Your task to perform on an android device: check data usage Image 0: 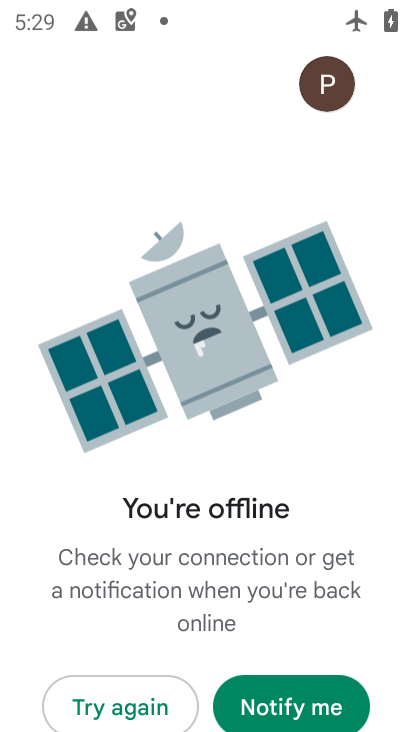
Step 0: press home button
Your task to perform on an android device: check data usage Image 1: 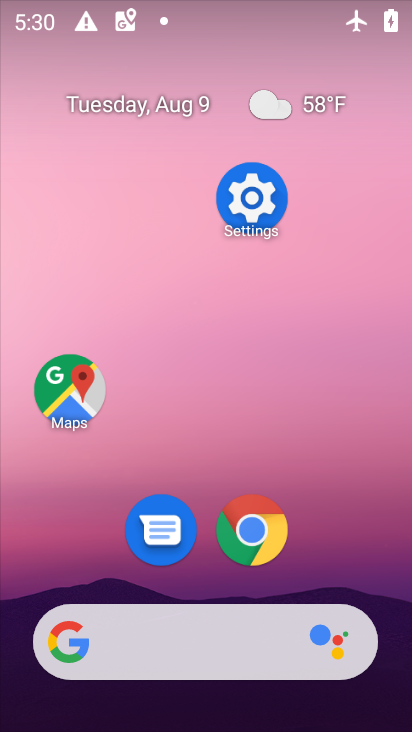
Step 1: click (268, 191)
Your task to perform on an android device: check data usage Image 2: 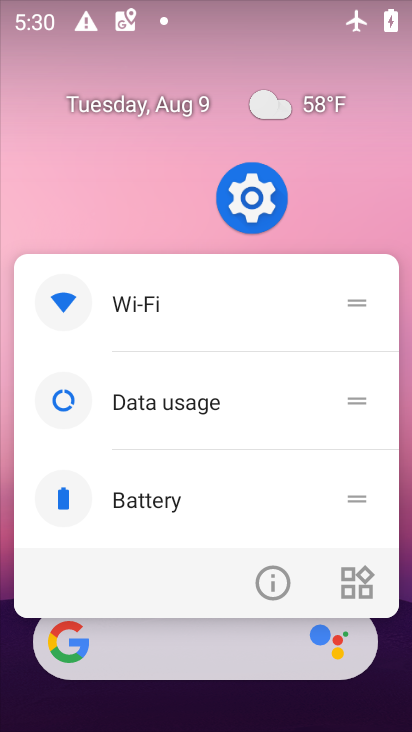
Step 2: click (231, 405)
Your task to perform on an android device: check data usage Image 3: 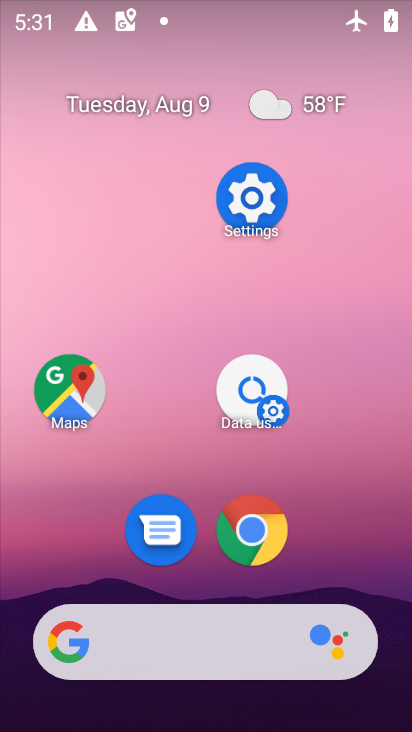
Step 3: click (242, 201)
Your task to perform on an android device: check data usage Image 4: 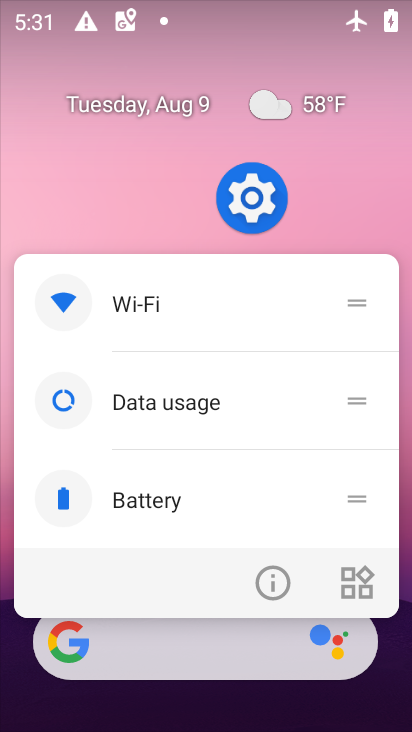
Step 4: task complete